Your task to perform on an android device: set the timer Image 0: 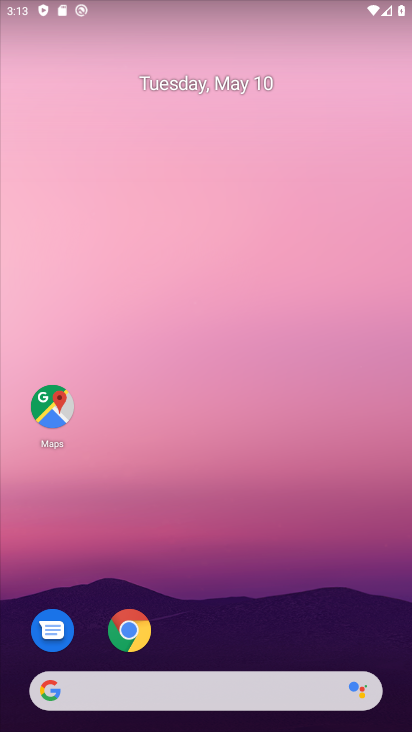
Step 0: drag from (237, 644) to (211, 128)
Your task to perform on an android device: set the timer Image 1: 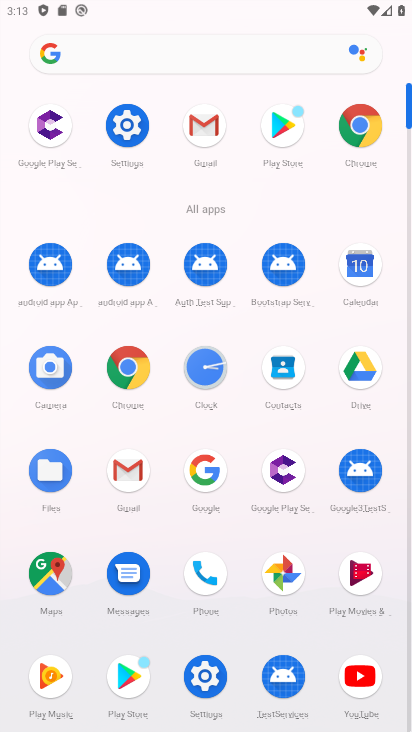
Step 1: click (186, 358)
Your task to perform on an android device: set the timer Image 2: 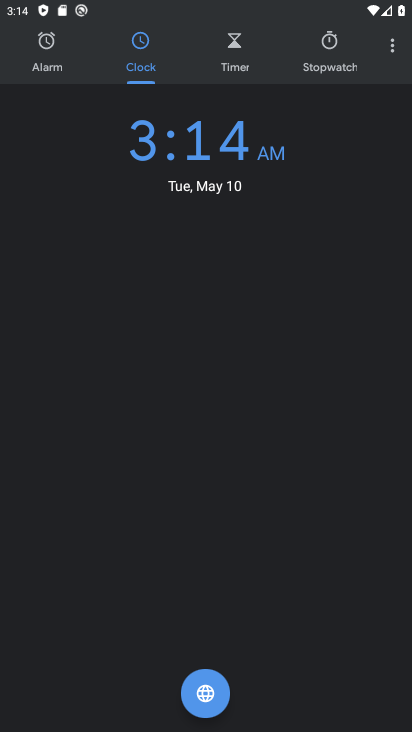
Step 2: click (246, 56)
Your task to perform on an android device: set the timer Image 3: 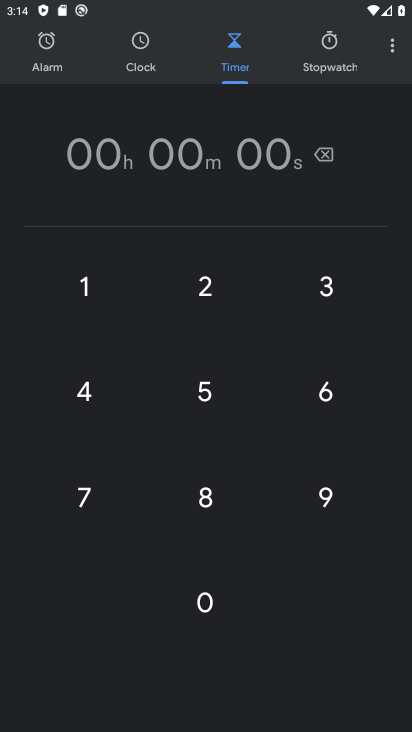
Step 3: click (206, 362)
Your task to perform on an android device: set the timer Image 4: 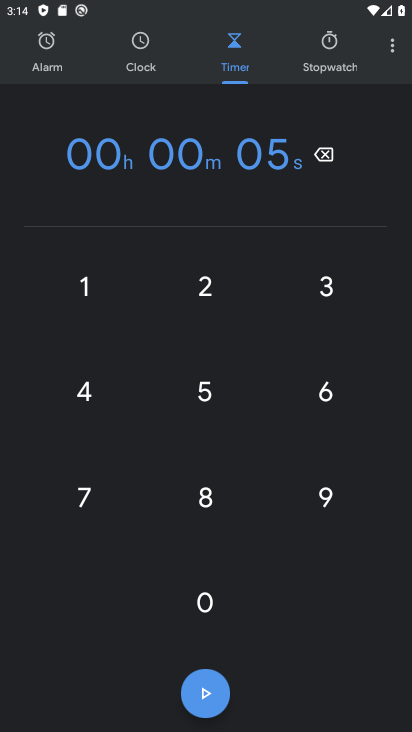
Step 4: click (198, 687)
Your task to perform on an android device: set the timer Image 5: 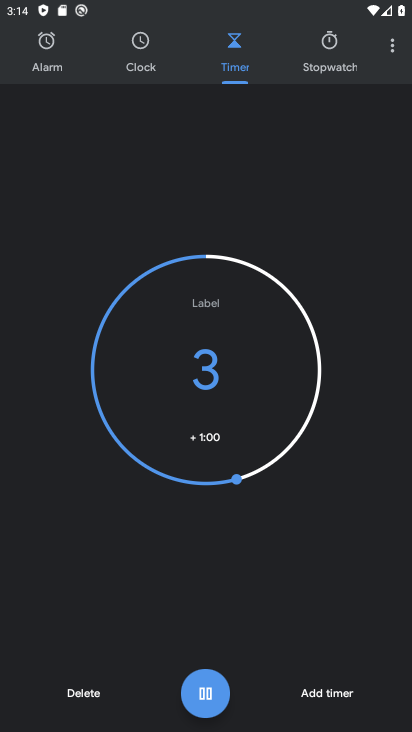
Step 5: task complete